Your task to perform on an android device: Go to wifi settings Image 0: 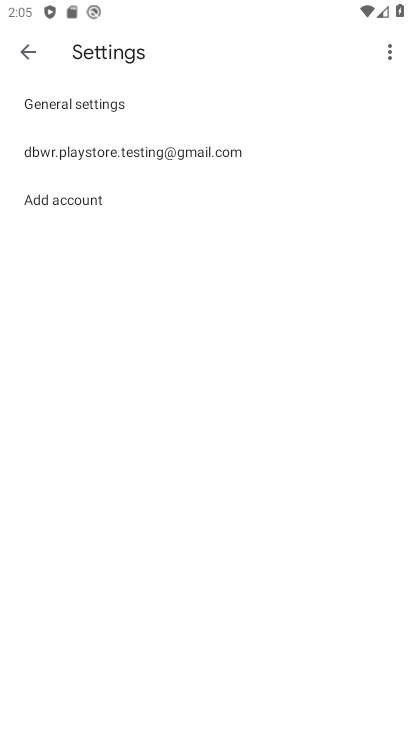
Step 0: press home button
Your task to perform on an android device: Go to wifi settings Image 1: 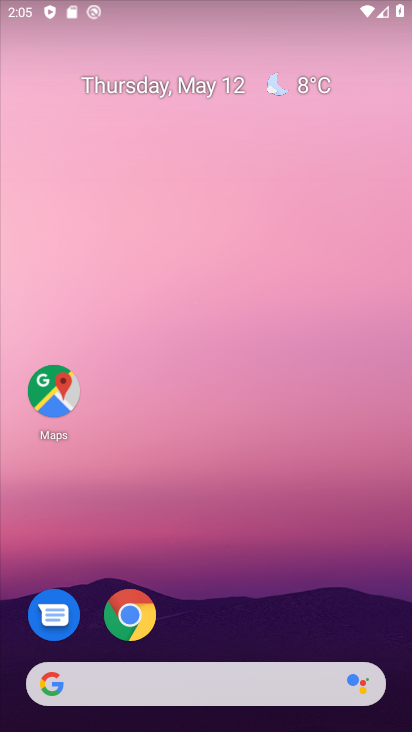
Step 1: drag from (202, 675) to (336, 131)
Your task to perform on an android device: Go to wifi settings Image 2: 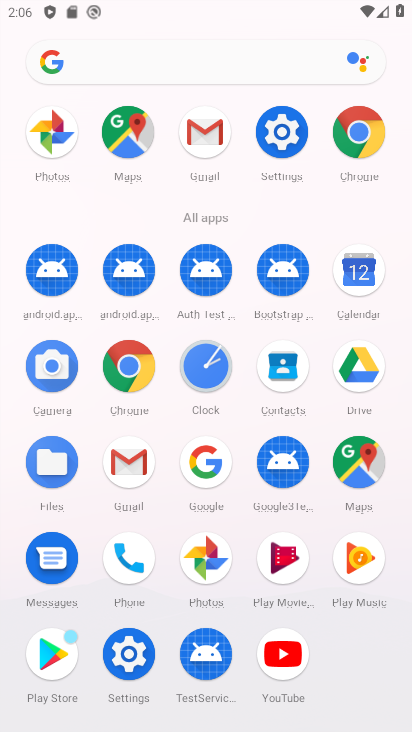
Step 2: click (146, 665)
Your task to perform on an android device: Go to wifi settings Image 3: 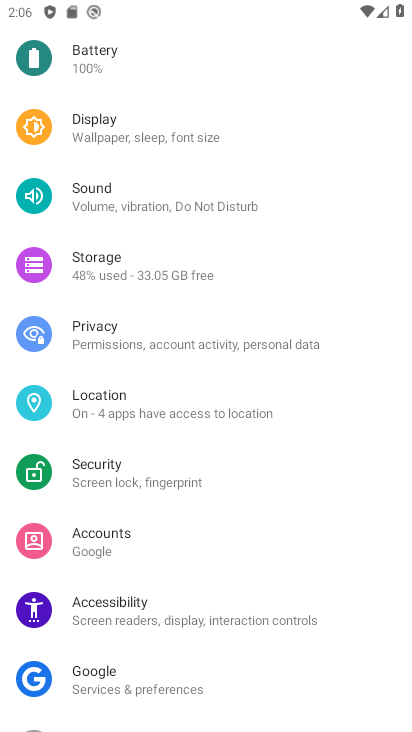
Step 3: drag from (224, 111) to (184, 577)
Your task to perform on an android device: Go to wifi settings Image 4: 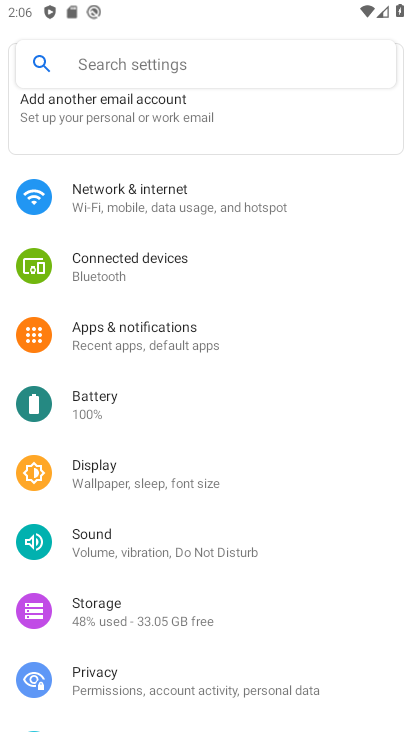
Step 4: click (194, 193)
Your task to perform on an android device: Go to wifi settings Image 5: 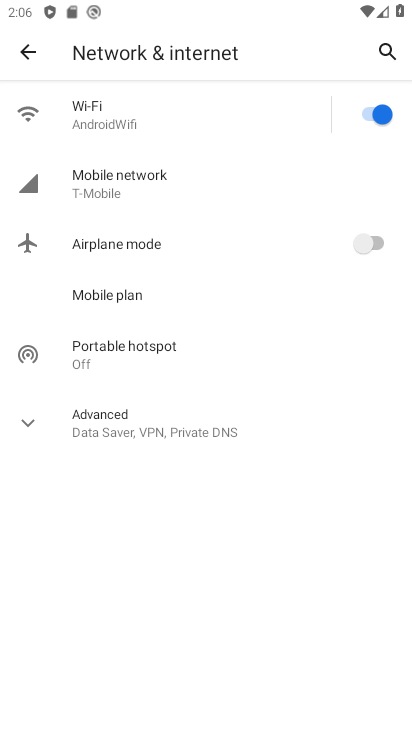
Step 5: click (201, 117)
Your task to perform on an android device: Go to wifi settings Image 6: 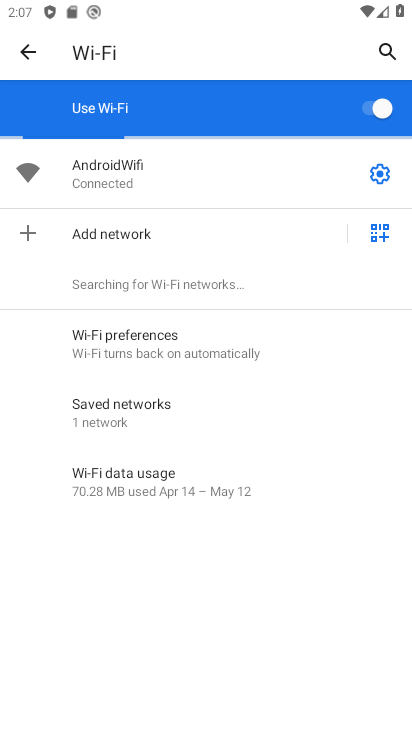
Step 6: task complete